Your task to perform on an android device: Show me the alarms in the clock app Image 0: 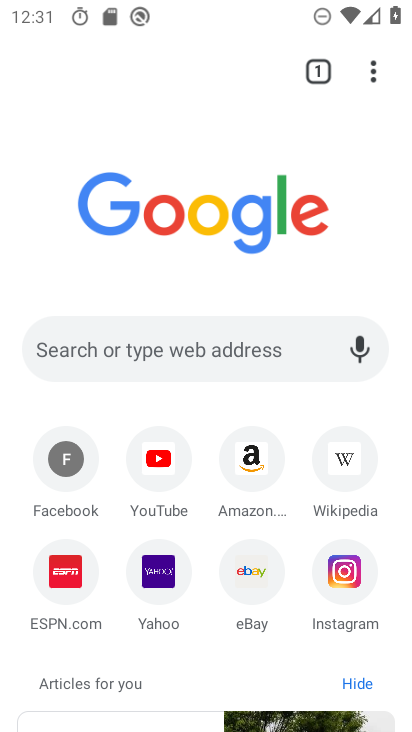
Step 0: press home button
Your task to perform on an android device: Show me the alarms in the clock app Image 1: 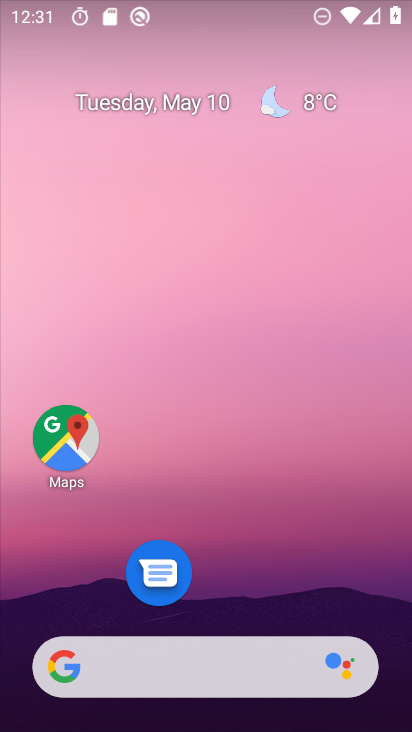
Step 1: drag from (207, 616) to (273, 9)
Your task to perform on an android device: Show me the alarms in the clock app Image 2: 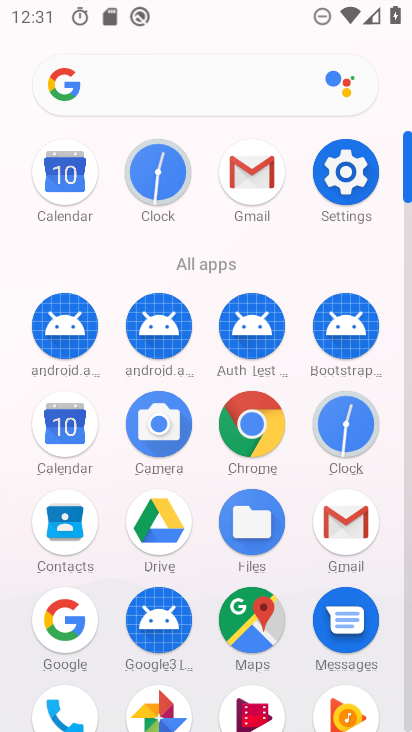
Step 2: click (164, 197)
Your task to perform on an android device: Show me the alarms in the clock app Image 3: 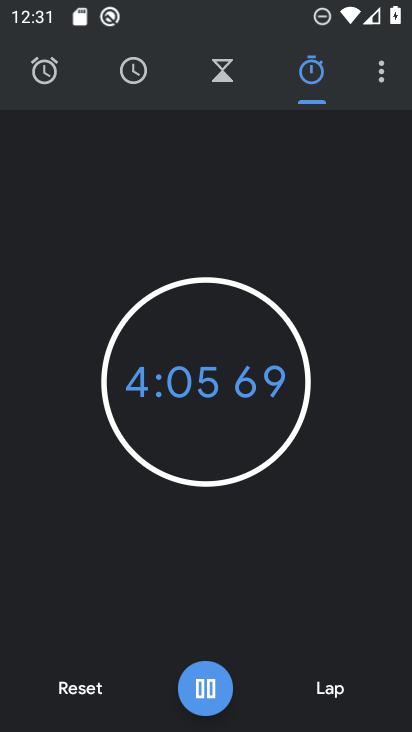
Step 3: click (201, 698)
Your task to perform on an android device: Show me the alarms in the clock app Image 4: 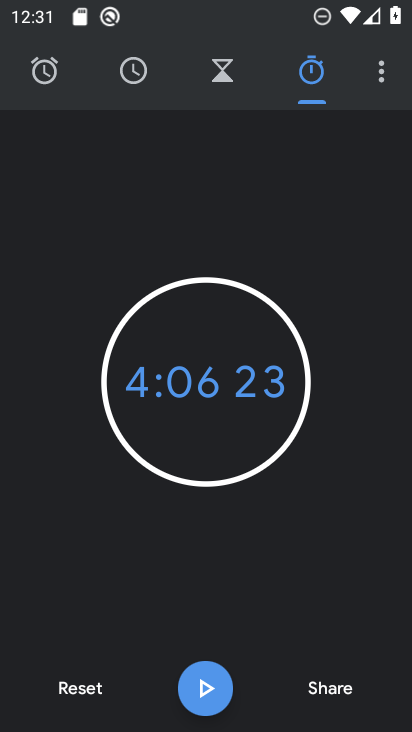
Step 4: click (58, 73)
Your task to perform on an android device: Show me the alarms in the clock app Image 5: 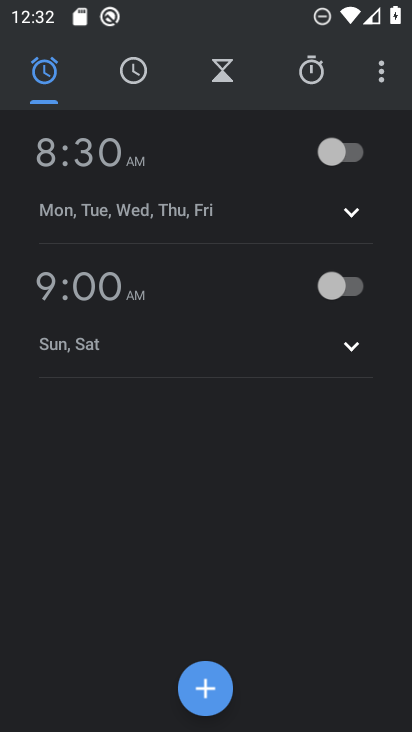
Step 5: task complete